Your task to perform on an android device: Open Google Chrome Image 0: 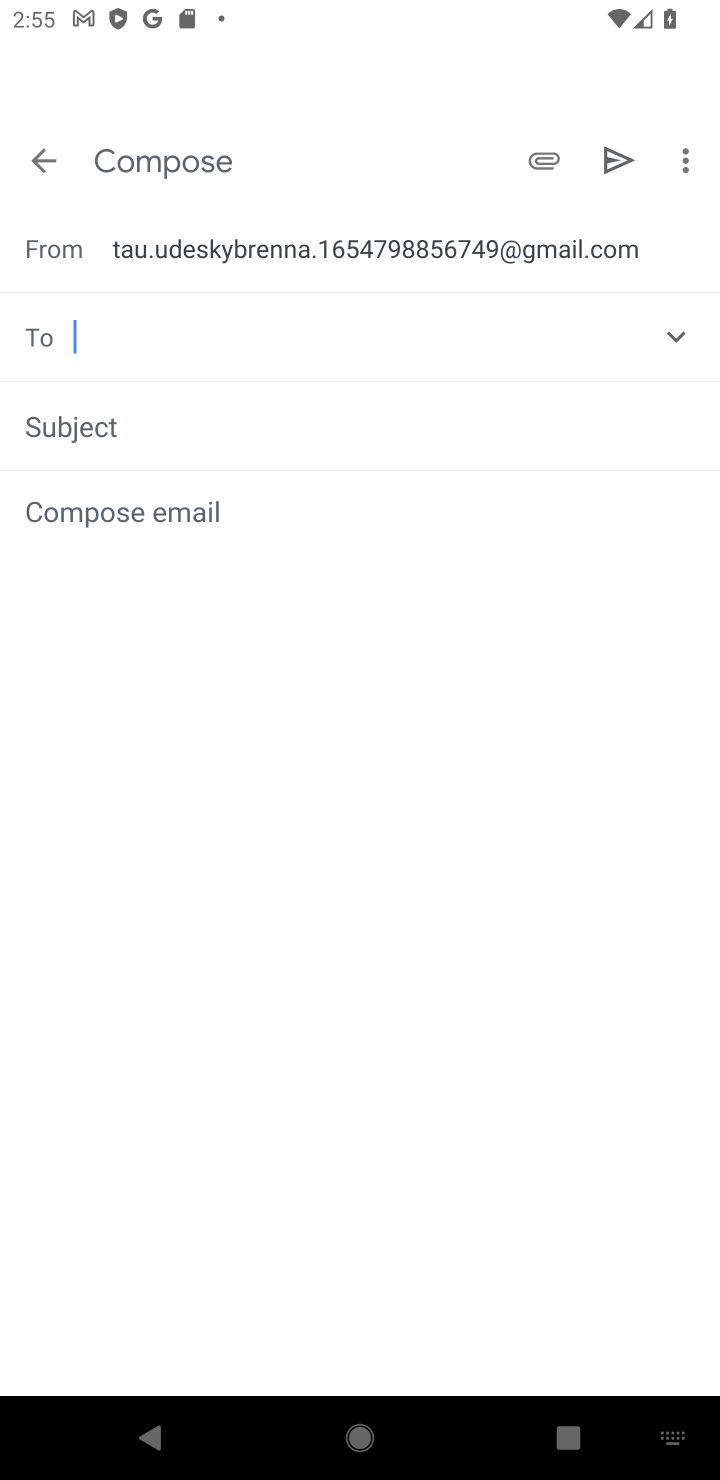
Step 0: press home button
Your task to perform on an android device: Open Google Chrome Image 1: 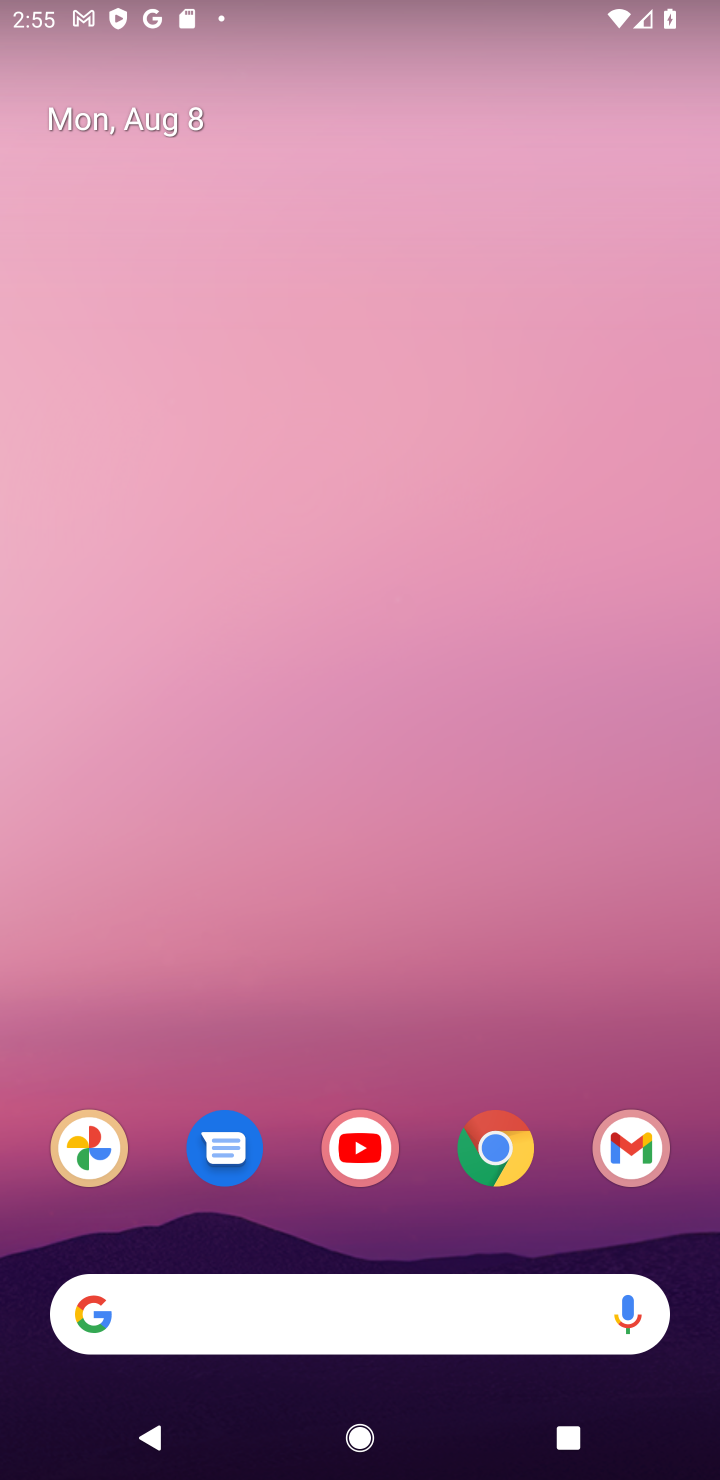
Step 1: click (485, 1153)
Your task to perform on an android device: Open Google Chrome Image 2: 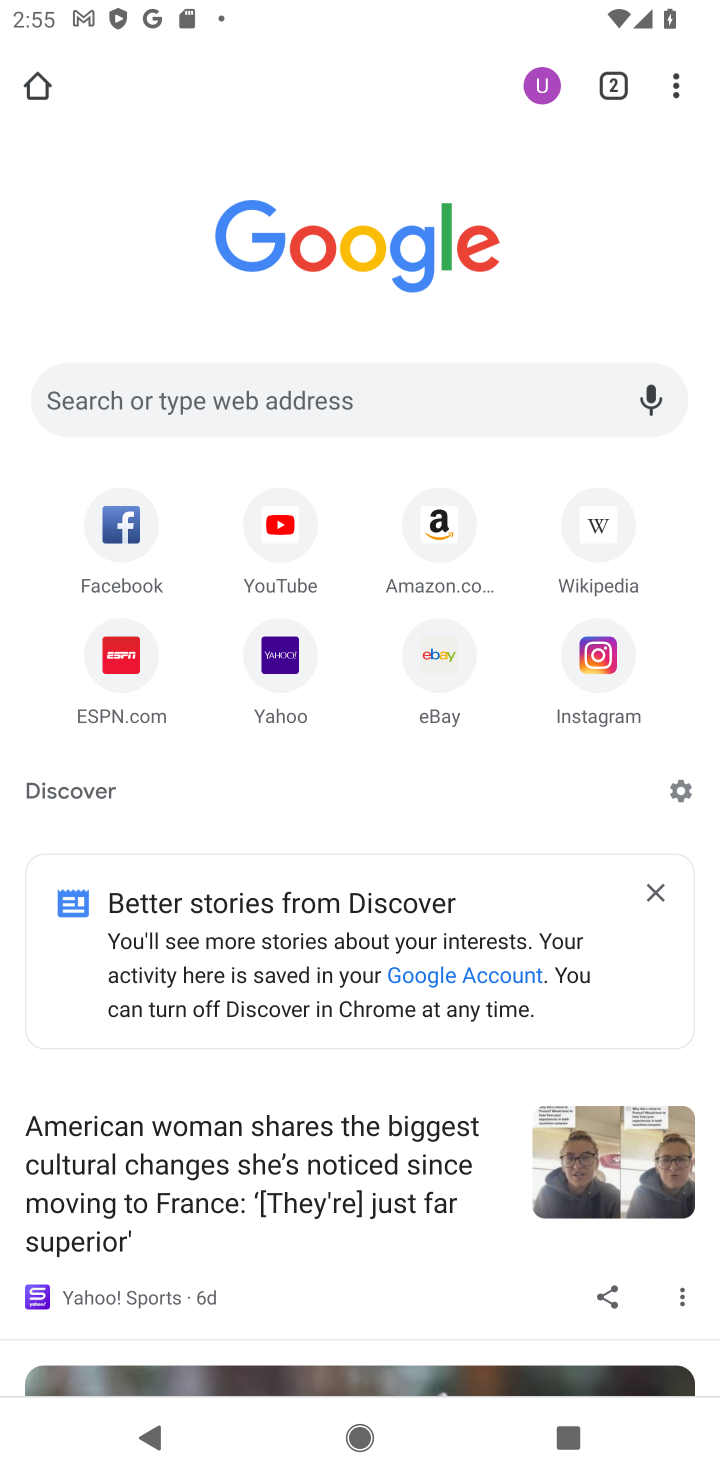
Step 2: task complete